Your task to perform on an android device: delete a single message in the gmail app Image 0: 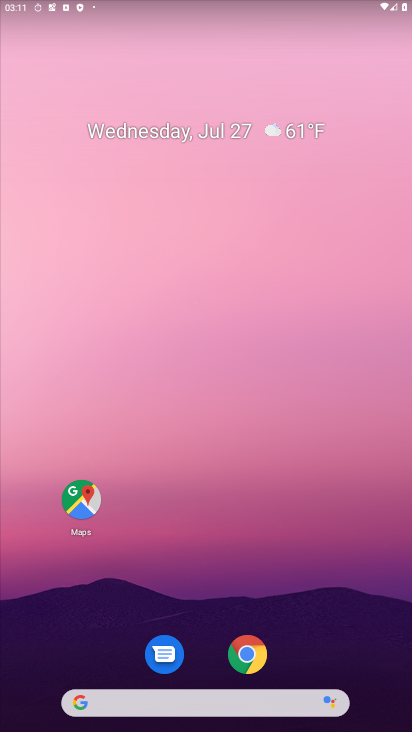
Step 0: click (140, 670)
Your task to perform on an android device: delete a single message in the gmail app Image 1: 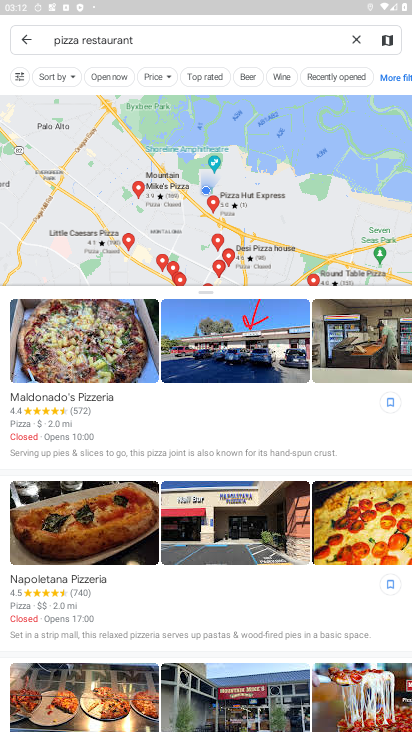
Step 1: press home button
Your task to perform on an android device: delete a single message in the gmail app Image 2: 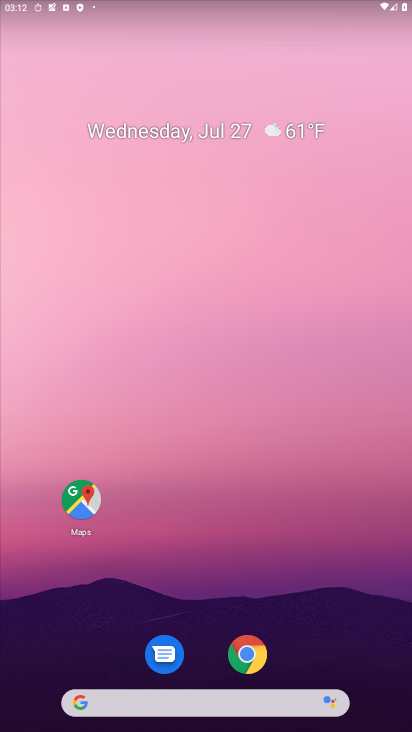
Step 2: click (251, 75)
Your task to perform on an android device: delete a single message in the gmail app Image 3: 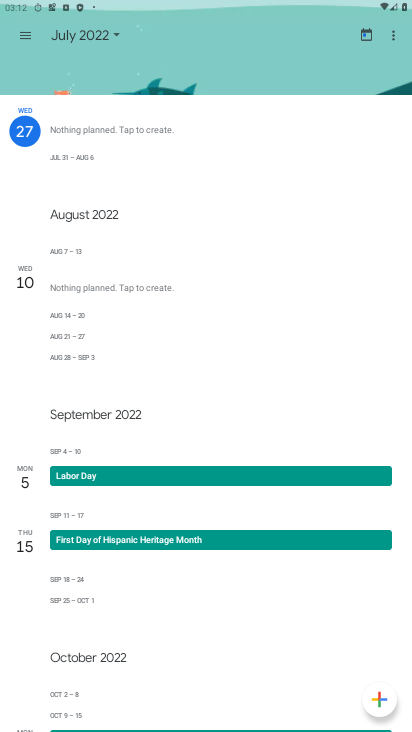
Step 3: press home button
Your task to perform on an android device: delete a single message in the gmail app Image 4: 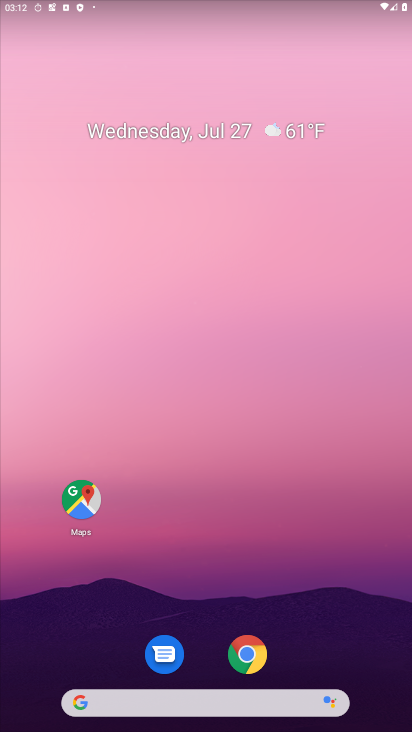
Step 4: drag from (306, 686) to (358, 38)
Your task to perform on an android device: delete a single message in the gmail app Image 5: 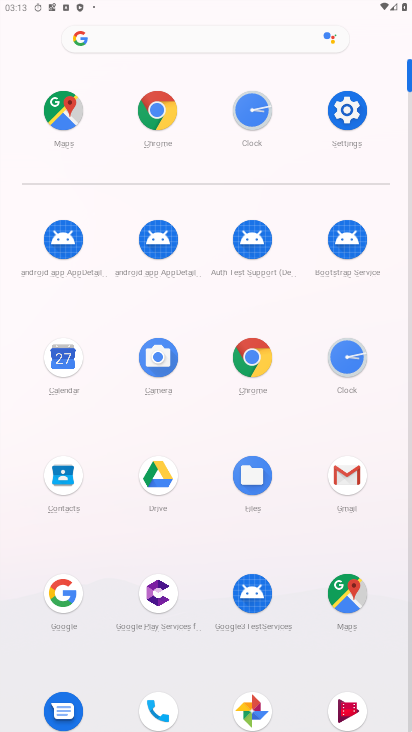
Step 5: click (353, 481)
Your task to perform on an android device: delete a single message in the gmail app Image 6: 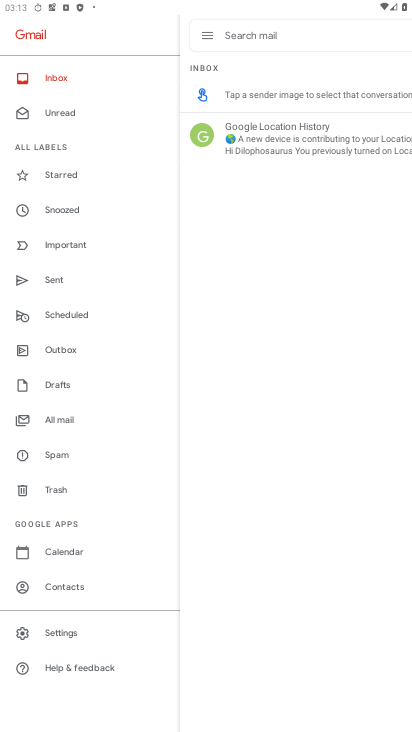
Step 6: click (61, 169)
Your task to perform on an android device: delete a single message in the gmail app Image 7: 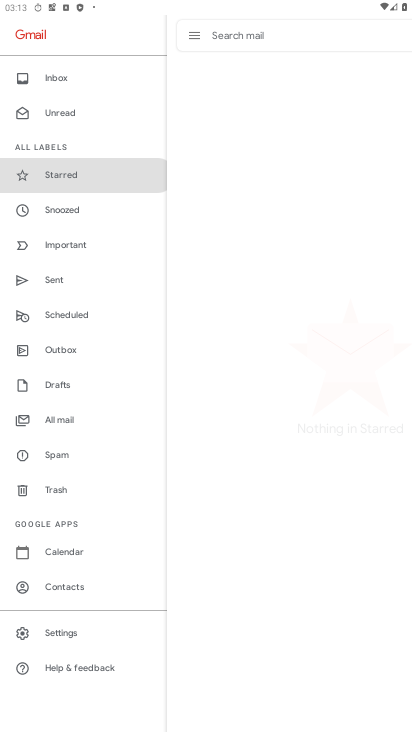
Step 7: task complete